Your task to perform on an android device: Do I have any events today? Image 0: 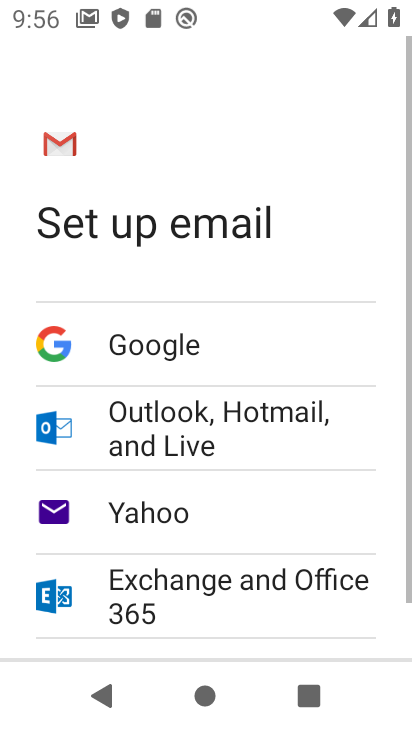
Step 0: press home button
Your task to perform on an android device: Do I have any events today? Image 1: 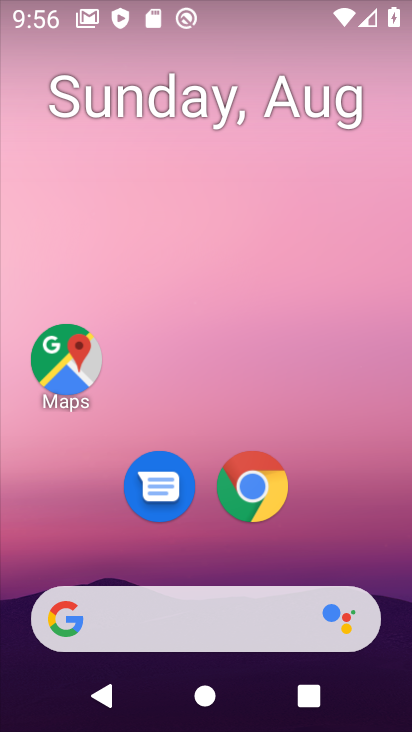
Step 1: drag from (266, 354) to (275, 259)
Your task to perform on an android device: Do I have any events today? Image 2: 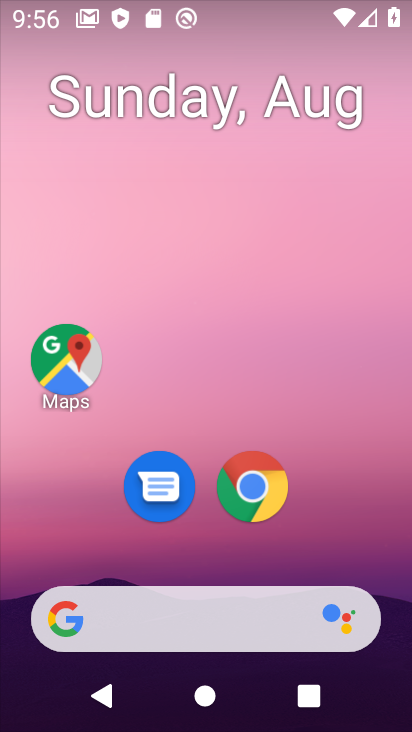
Step 2: drag from (266, 615) to (269, 39)
Your task to perform on an android device: Do I have any events today? Image 3: 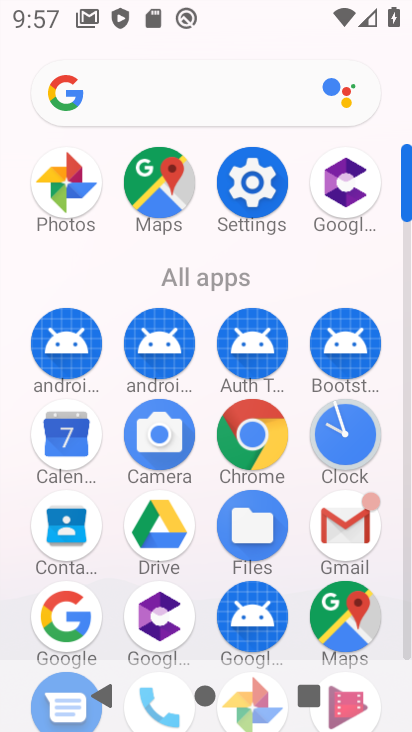
Step 3: click (77, 452)
Your task to perform on an android device: Do I have any events today? Image 4: 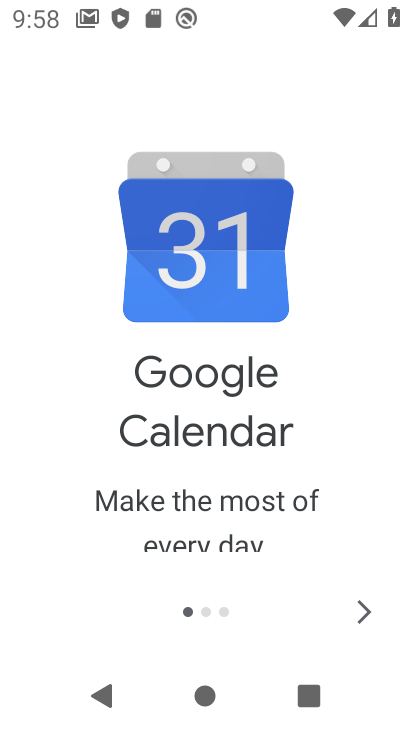
Step 4: click (375, 621)
Your task to perform on an android device: Do I have any events today? Image 5: 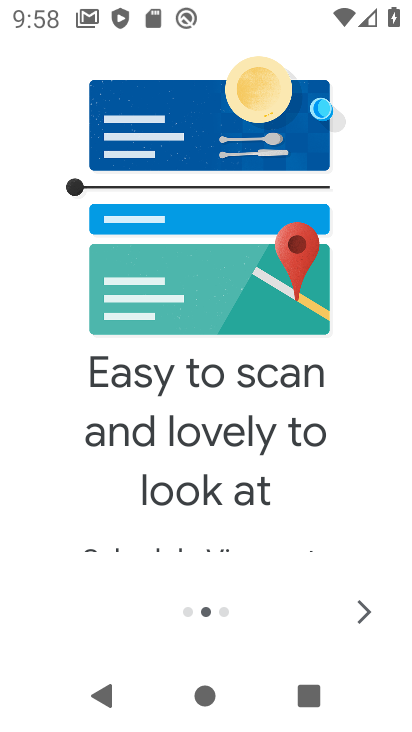
Step 5: click (352, 609)
Your task to perform on an android device: Do I have any events today? Image 6: 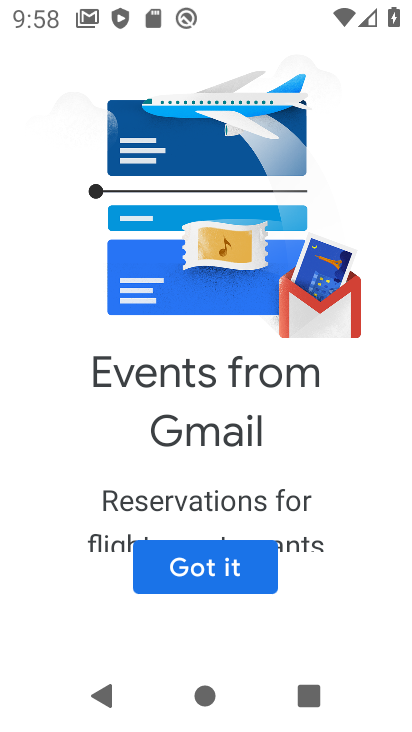
Step 6: click (207, 582)
Your task to perform on an android device: Do I have any events today? Image 7: 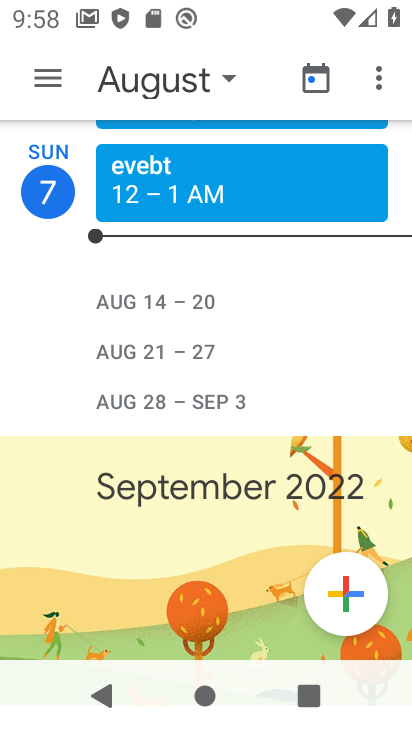
Step 7: click (405, 75)
Your task to perform on an android device: Do I have any events today? Image 8: 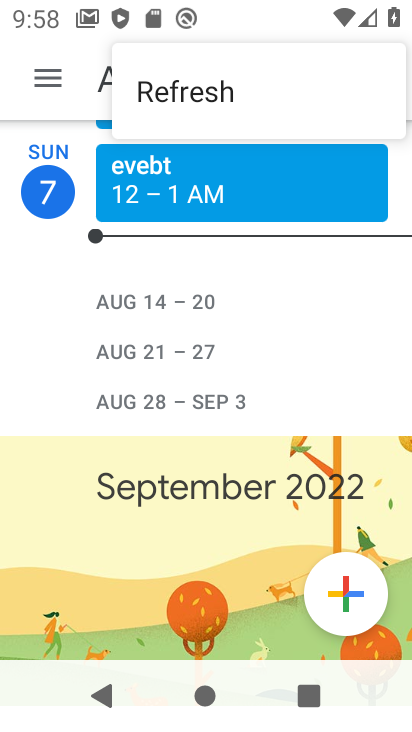
Step 8: click (69, 364)
Your task to perform on an android device: Do I have any events today? Image 9: 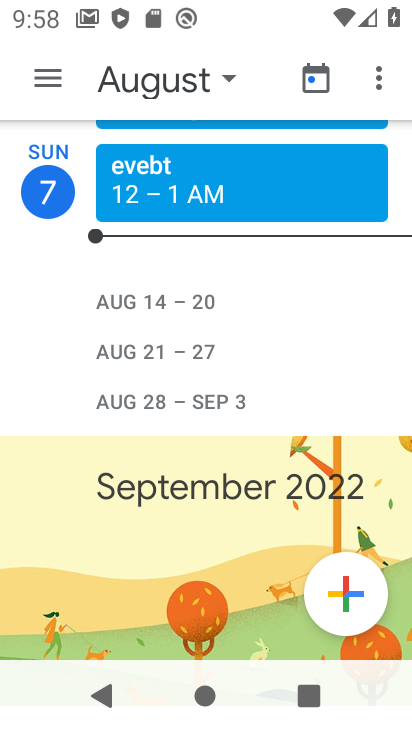
Step 9: click (121, 86)
Your task to perform on an android device: Do I have any events today? Image 10: 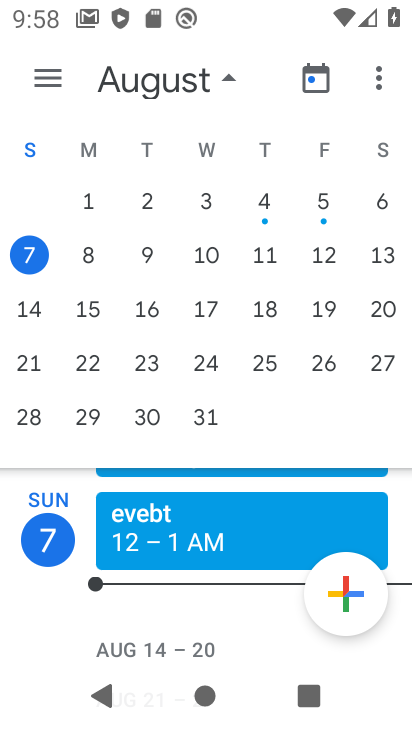
Step 10: click (27, 261)
Your task to perform on an android device: Do I have any events today? Image 11: 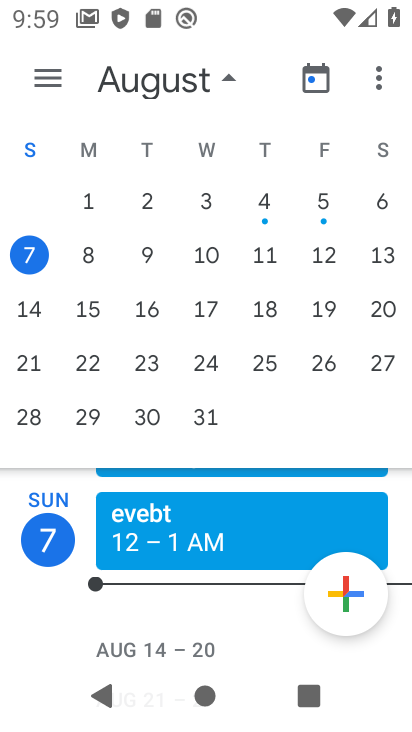
Step 11: task complete